Your task to perform on an android device: What is the recent news? Image 0: 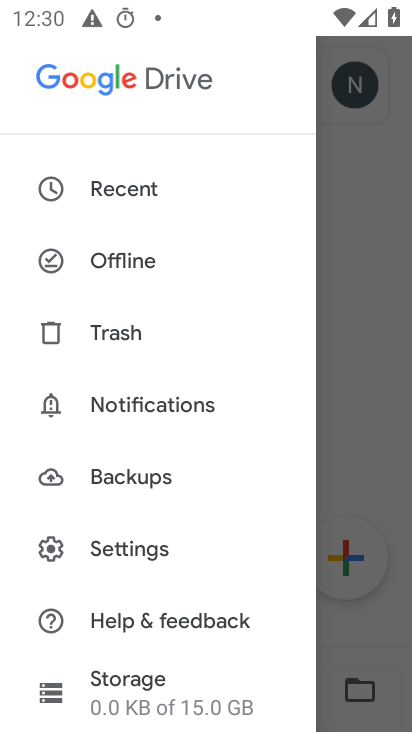
Step 0: press home button
Your task to perform on an android device: What is the recent news? Image 1: 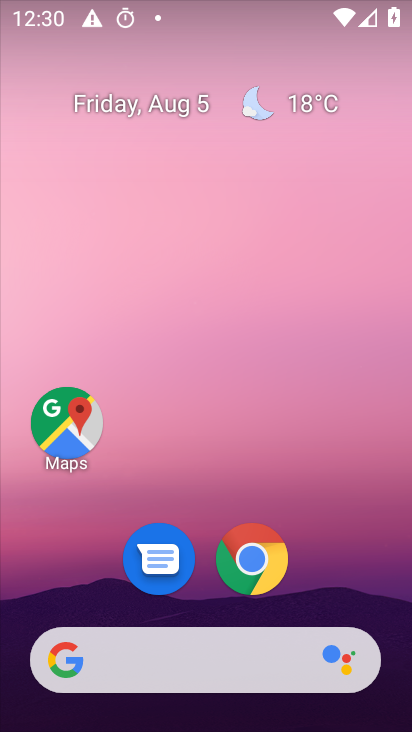
Step 1: click (133, 649)
Your task to perform on an android device: What is the recent news? Image 2: 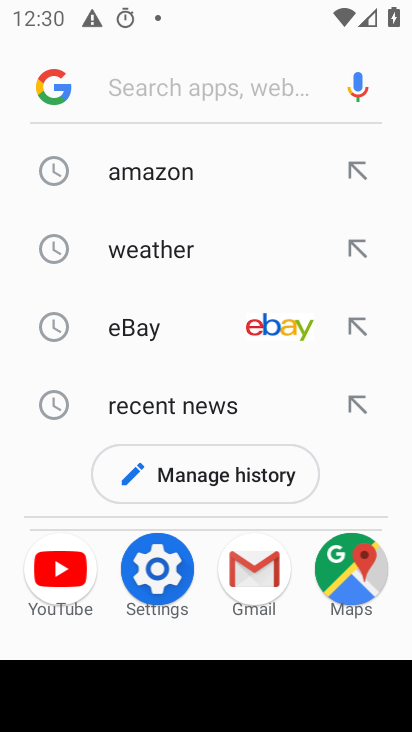
Step 2: type "What is the recent news?"
Your task to perform on an android device: What is the recent news? Image 3: 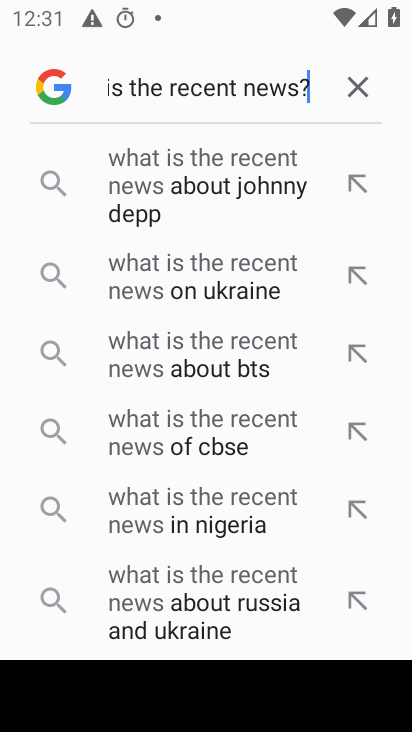
Step 3: task complete